Your task to perform on an android device: Go to settings Image 0: 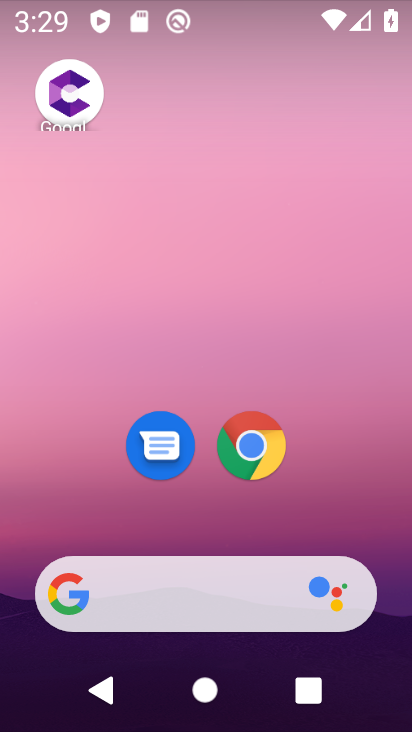
Step 0: drag from (388, 561) to (310, 37)
Your task to perform on an android device: Go to settings Image 1: 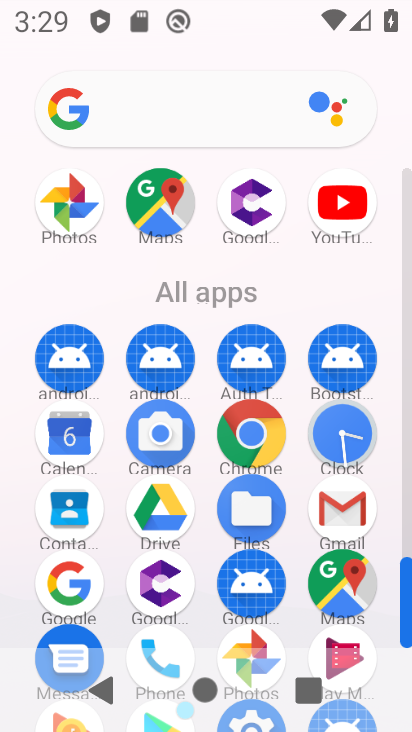
Step 1: drag from (16, 583) to (38, 194)
Your task to perform on an android device: Go to settings Image 2: 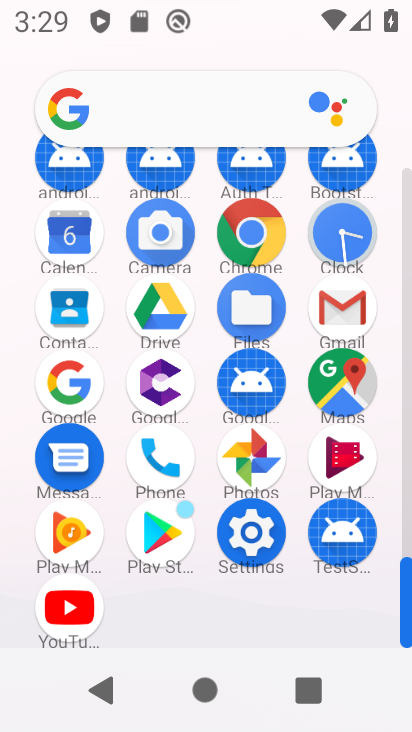
Step 2: click (253, 536)
Your task to perform on an android device: Go to settings Image 3: 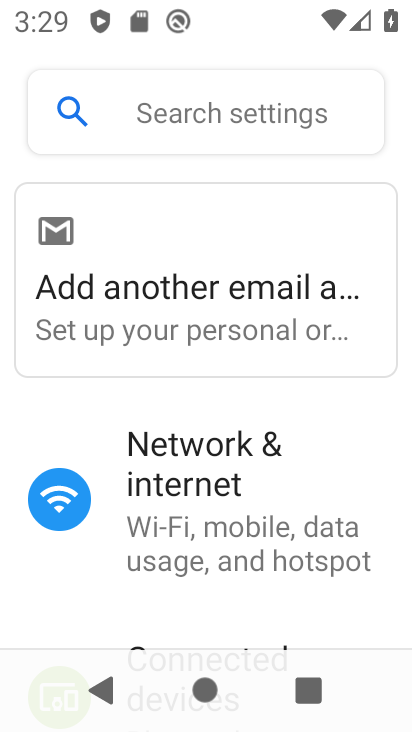
Step 3: task complete